Your task to perform on an android device: Search for macbook pro 13 inch on amazon, select the first entry, add it to the cart, then select checkout. Image 0: 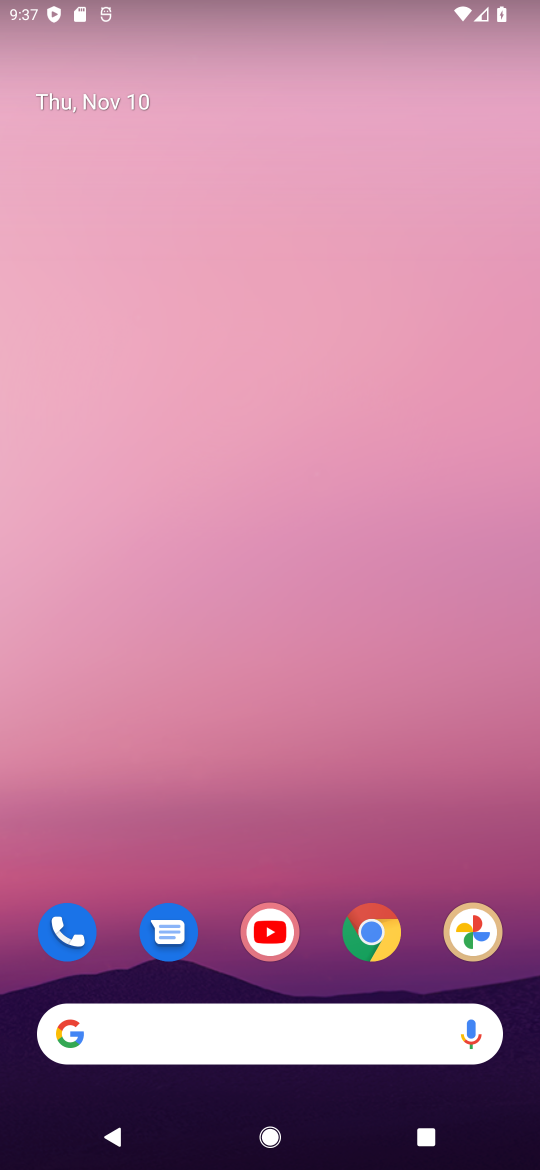
Step 0: click (372, 940)
Your task to perform on an android device: Search for macbook pro 13 inch on amazon, select the first entry, add it to the cart, then select checkout. Image 1: 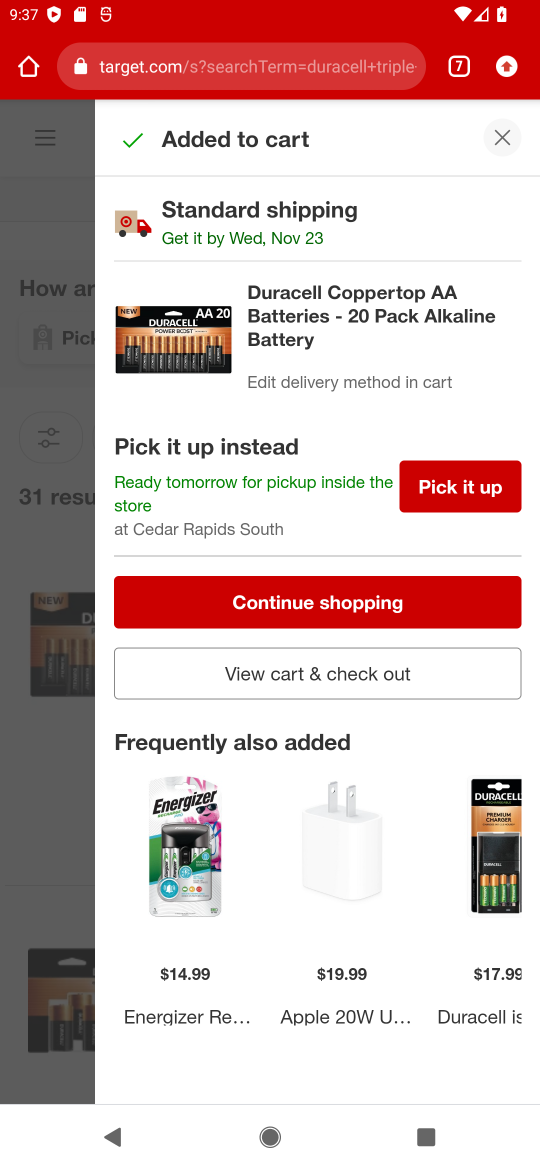
Step 1: click (460, 67)
Your task to perform on an android device: Search for macbook pro 13 inch on amazon, select the first entry, add it to the cart, then select checkout. Image 2: 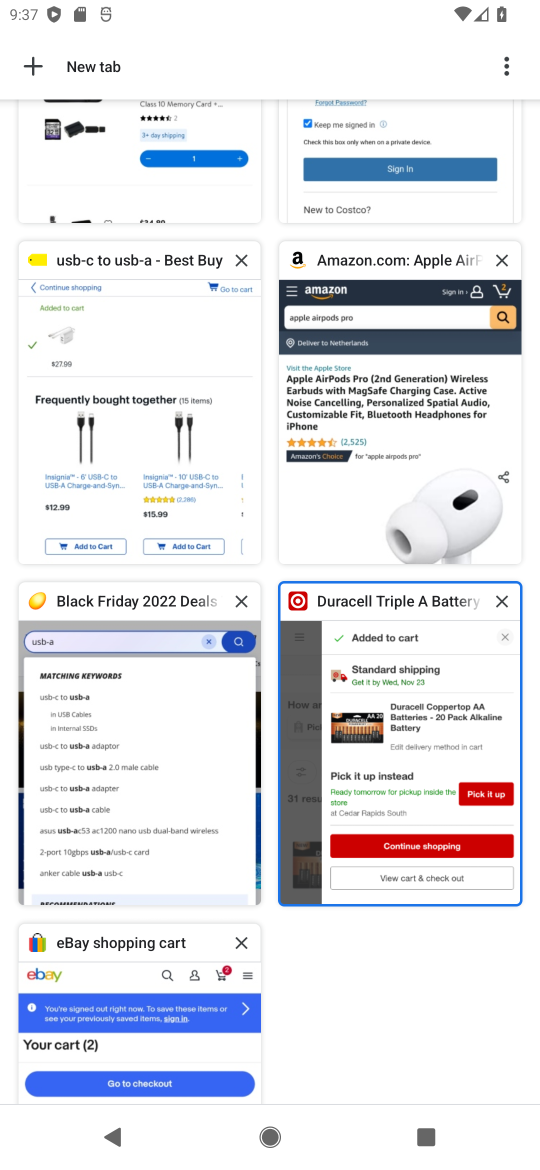
Step 2: click (393, 359)
Your task to perform on an android device: Search for macbook pro 13 inch on amazon, select the first entry, add it to the cart, then select checkout. Image 3: 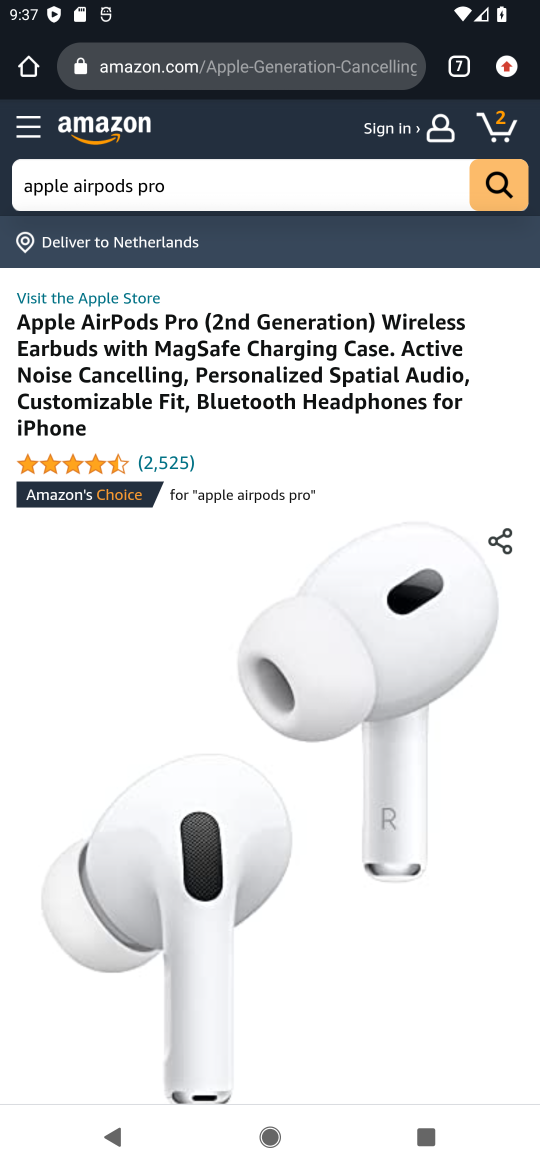
Step 3: click (322, 204)
Your task to perform on an android device: Search for macbook pro 13 inch on amazon, select the first entry, add it to the cart, then select checkout. Image 4: 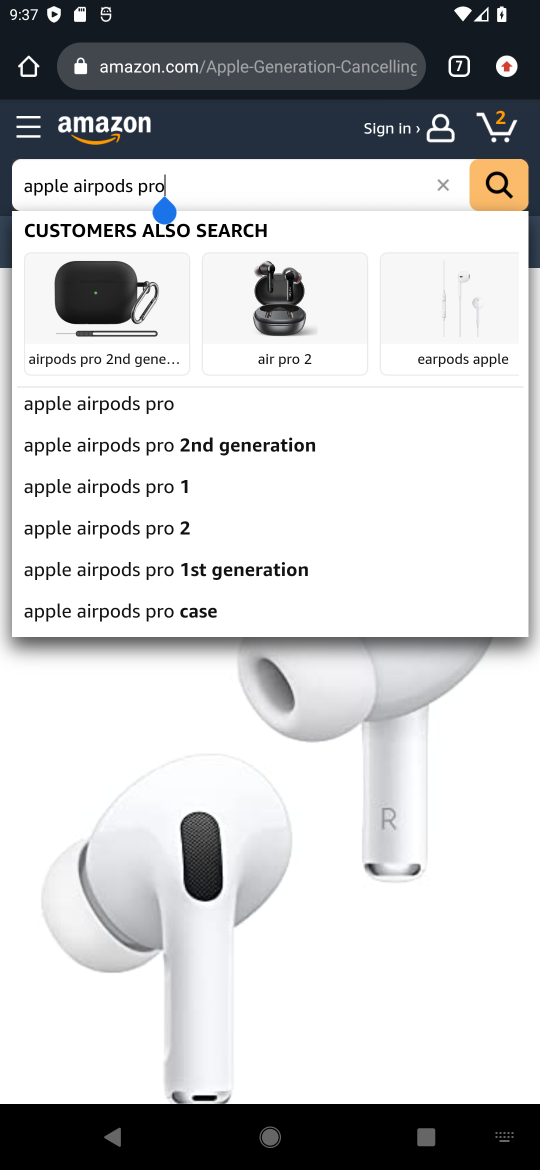
Step 4: click (443, 186)
Your task to perform on an android device: Search for macbook pro 13 inch on amazon, select the first entry, add it to the cart, then select checkout. Image 5: 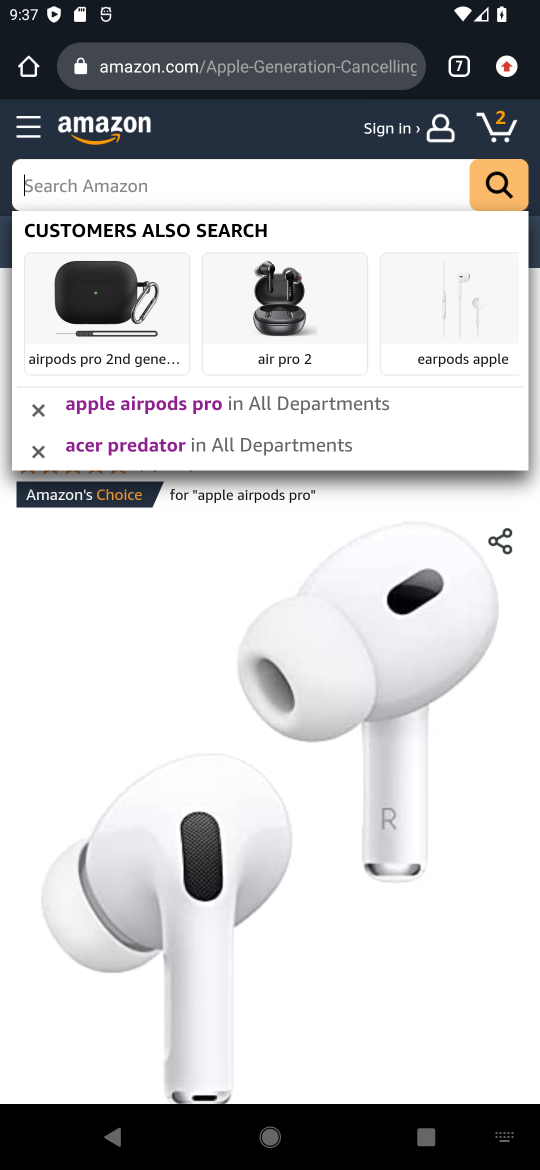
Step 5: type "macbook pro 13 inch "
Your task to perform on an android device: Search for macbook pro 13 inch on amazon, select the first entry, add it to the cart, then select checkout. Image 6: 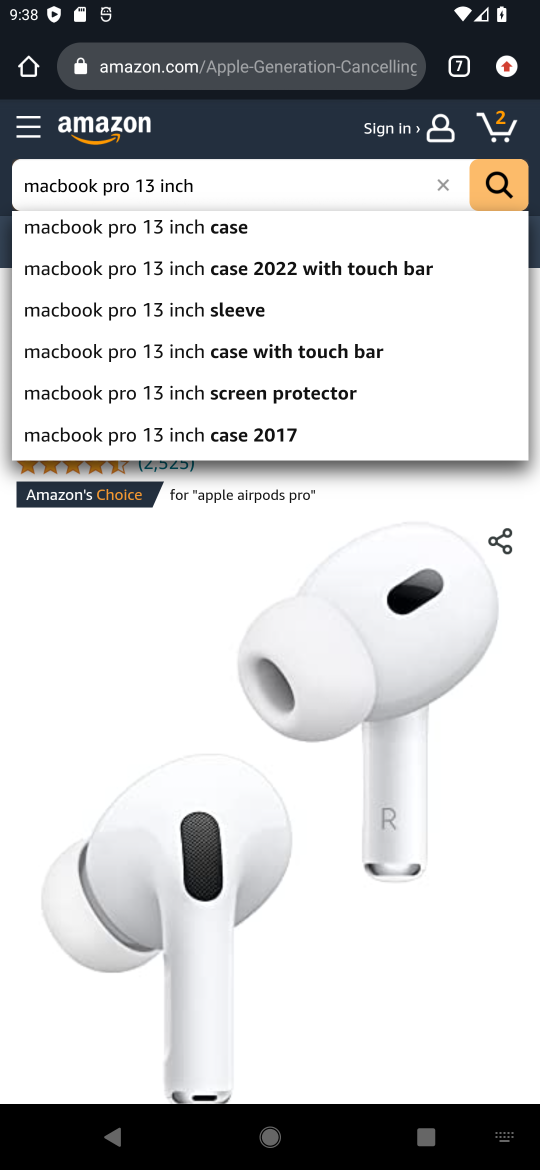
Step 6: click (499, 186)
Your task to perform on an android device: Search for macbook pro 13 inch on amazon, select the first entry, add it to the cart, then select checkout. Image 7: 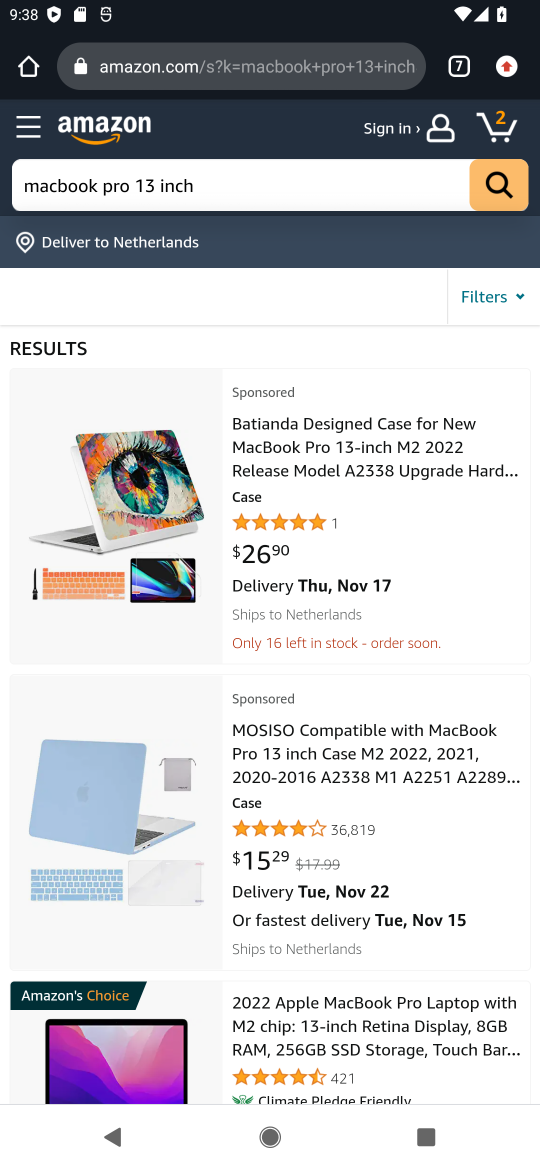
Step 7: click (359, 1029)
Your task to perform on an android device: Search for macbook pro 13 inch on amazon, select the first entry, add it to the cart, then select checkout. Image 8: 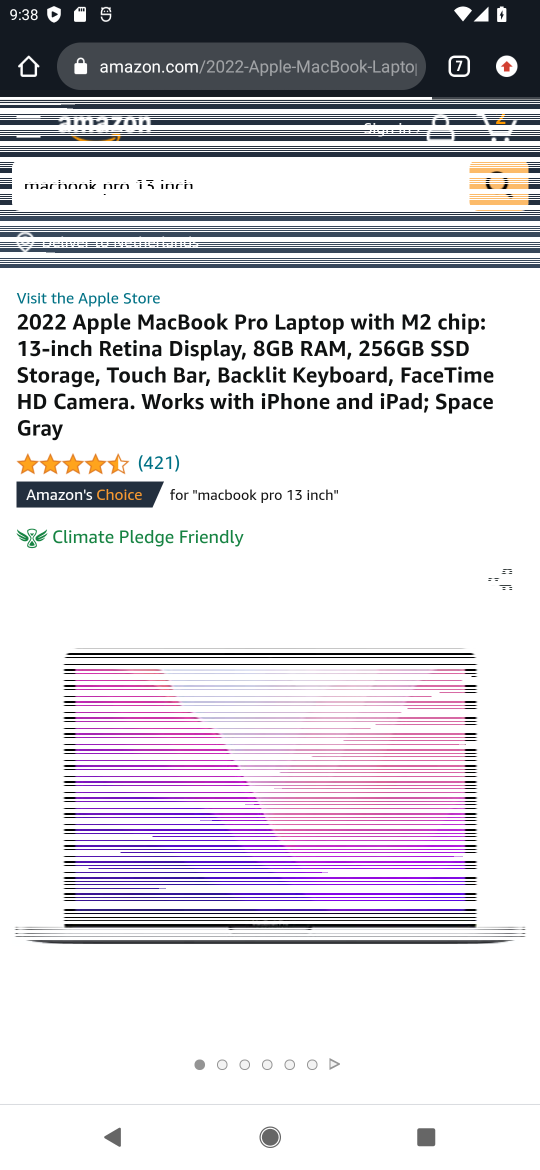
Step 8: drag from (403, 1027) to (532, 151)
Your task to perform on an android device: Search for macbook pro 13 inch on amazon, select the first entry, add it to the cart, then select checkout. Image 9: 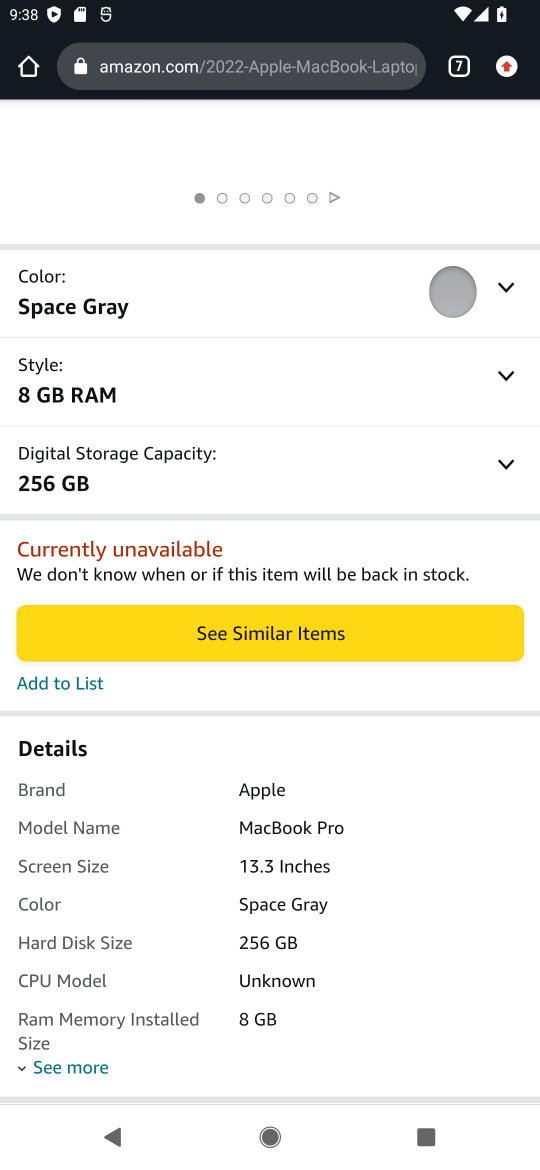
Step 9: click (315, 616)
Your task to perform on an android device: Search for macbook pro 13 inch on amazon, select the first entry, add it to the cart, then select checkout. Image 10: 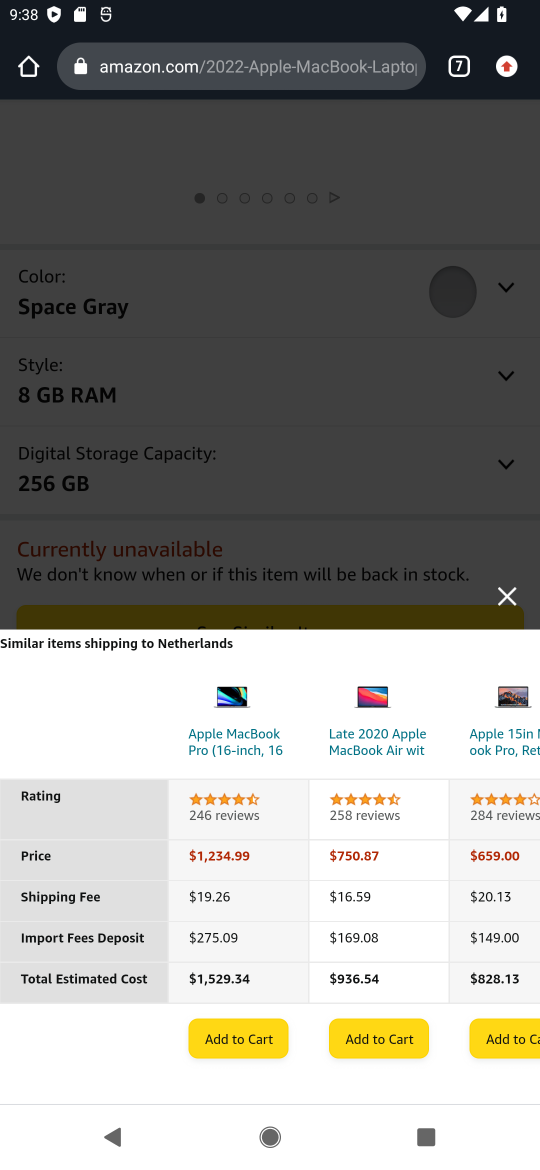
Step 10: click (252, 1042)
Your task to perform on an android device: Search for macbook pro 13 inch on amazon, select the first entry, add it to the cart, then select checkout. Image 11: 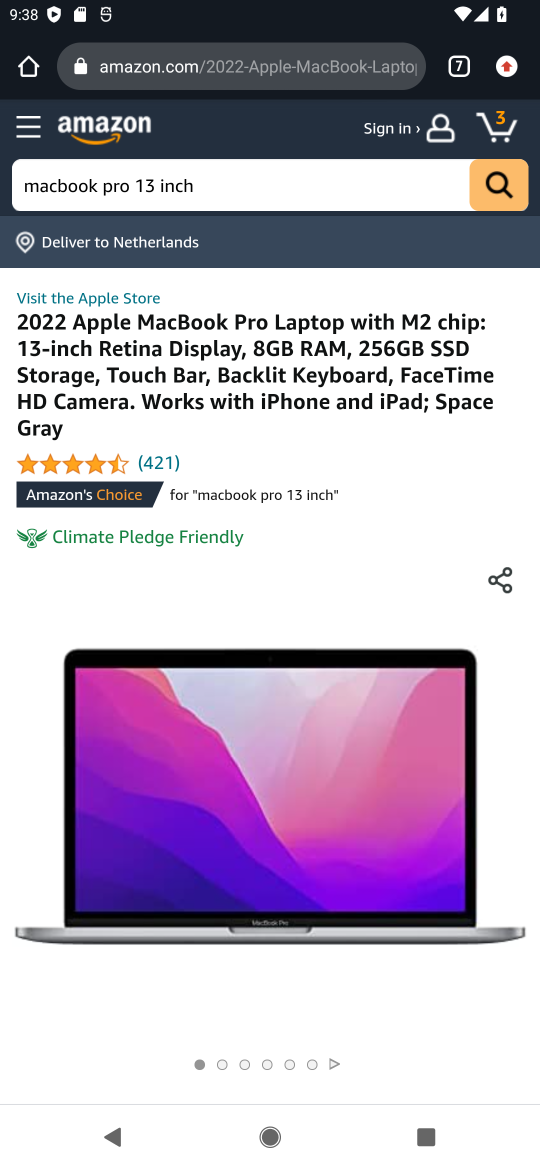
Step 11: click (501, 134)
Your task to perform on an android device: Search for macbook pro 13 inch on amazon, select the first entry, add it to the cart, then select checkout. Image 12: 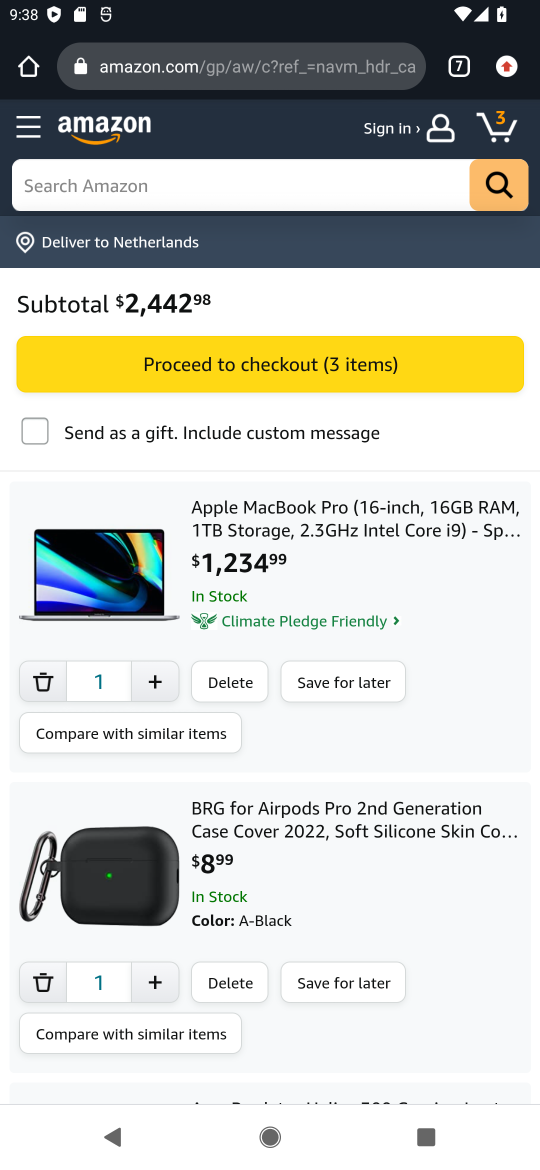
Step 12: click (340, 370)
Your task to perform on an android device: Search for macbook pro 13 inch on amazon, select the first entry, add it to the cart, then select checkout. Image 13: 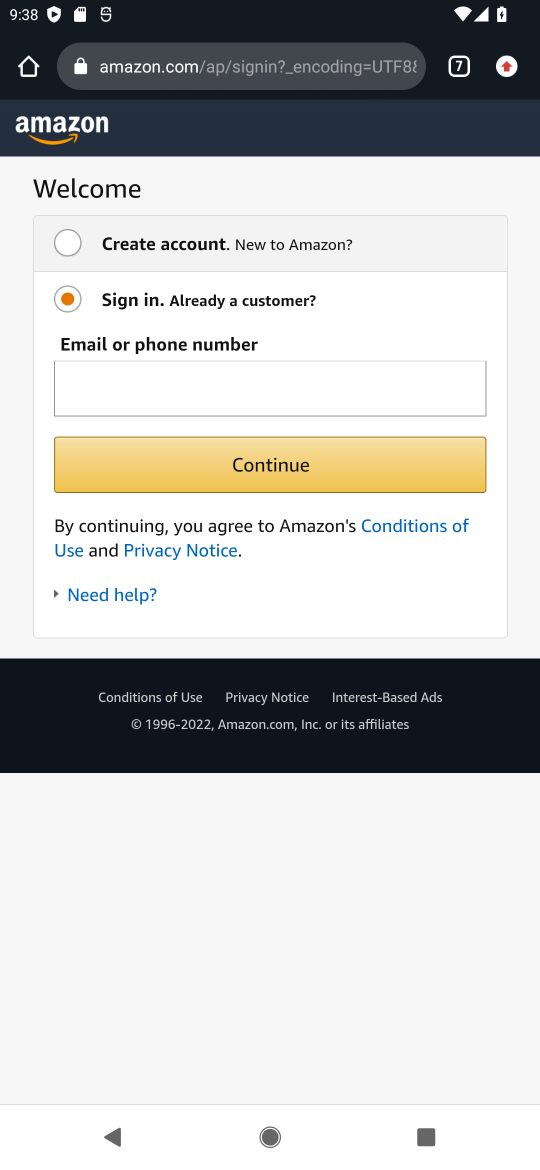
Step 13: task complete